Your task to perform on an android device: Open the Play Movies app and select the watchlist tab. Image 0: 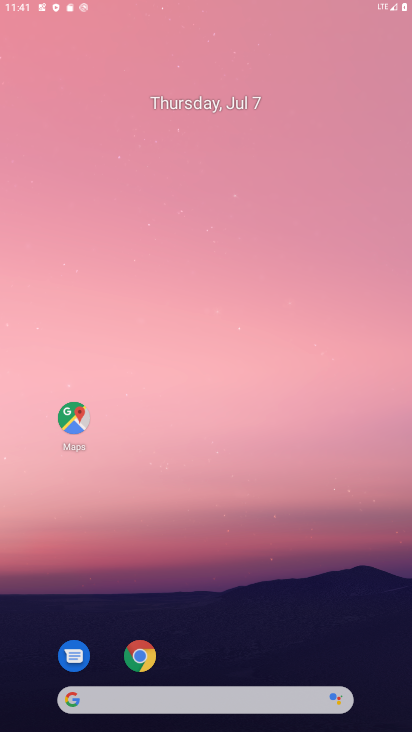
Step 0: click (230, 114)
Your task to perform on an android device: Open the Play Movies app and select the watchlist tab. Image 1: 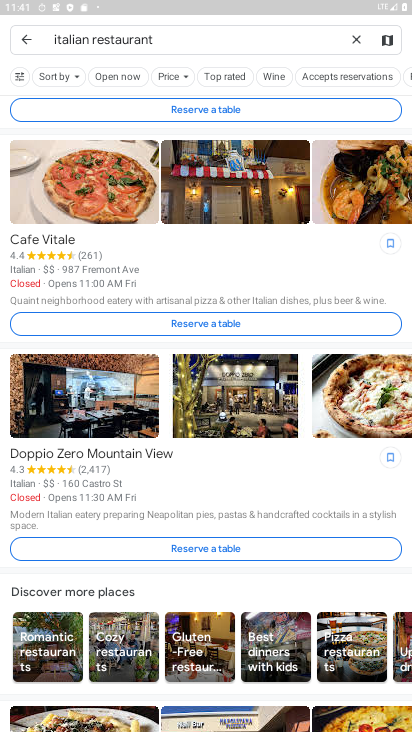
Step 1: press home button
Your task to perform on an android device: Open the Play Movies app and select the watchlist tab. Image 2: 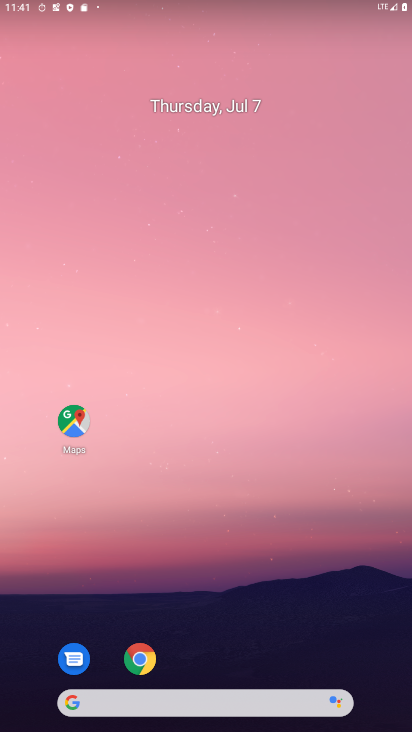
Step 2: drag from (244, 656) to (222, 51)
Your task to perform on an android device: Open the Play Movies app and select the watchlist tab. Image 3: 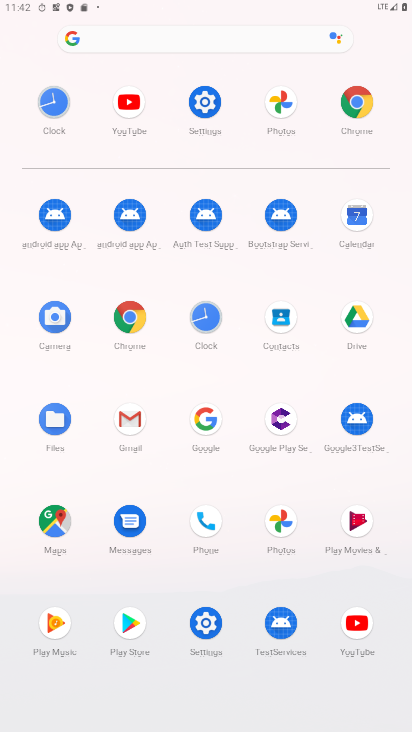
Step 3: click (359, 519)
Your task to perform on an android device: Open the Play Movies app and select the watchlist tab. Image 4: 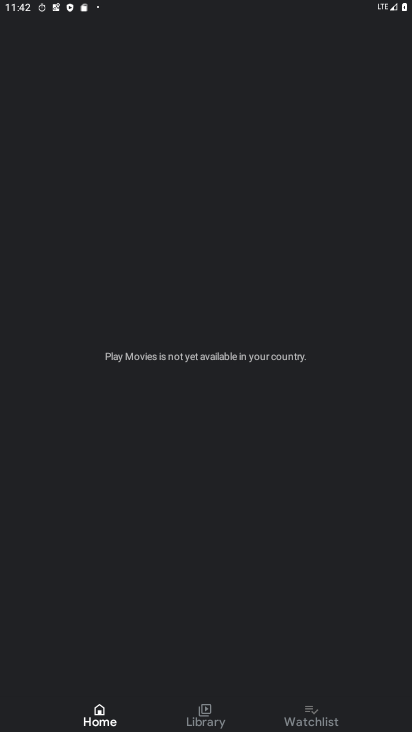
Step 4: click (312, 709)
Your task to perform on an android device: Open the Play Movies app and select the watchlist tab. Image 5: 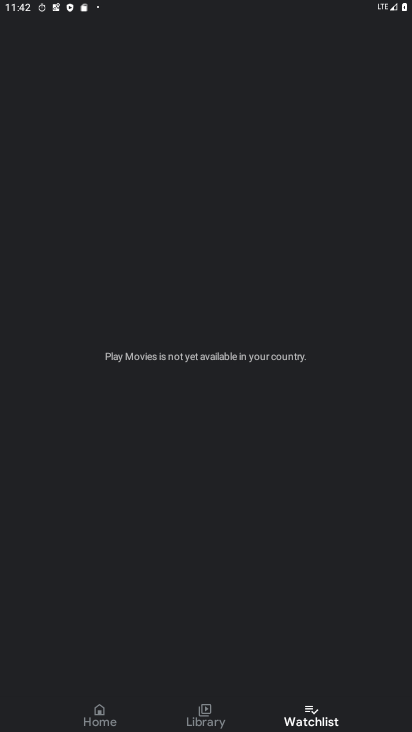
Step 5: task complete